Your task to perform on an android device: What's the weather? Image 0: 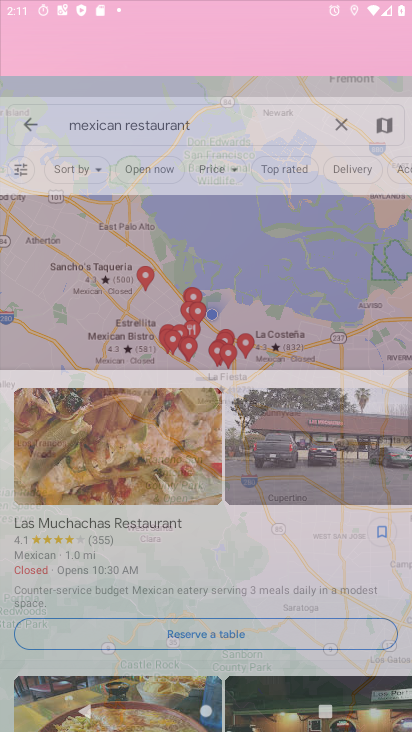
Step 0: drag from (263, 8) to (21, 650)
Your task to perform on an android device: What's the weather? Image 1: 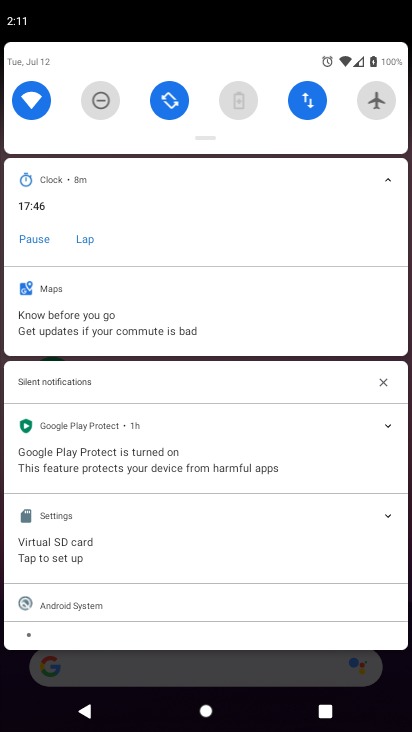
Step 1: drag from (170, 596) to (220, 86)
Your task to perform on an android device: What's the weather? Image 2: 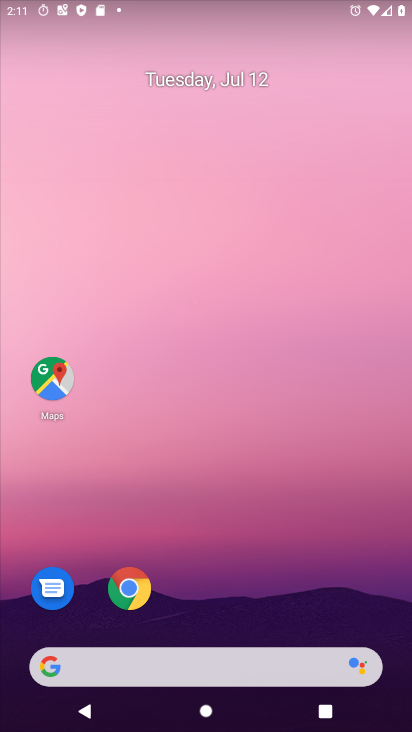
Step 2: drag from (189, 629) to (225, 5)
Your task to perform on an android device: What's the weather? Image 3: 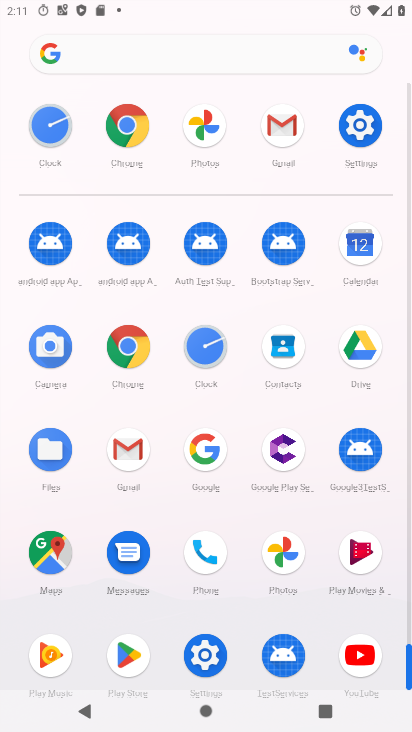
Step 3: click (155, 47)
Your task to perform on an android device: What's the weather? Image 4: 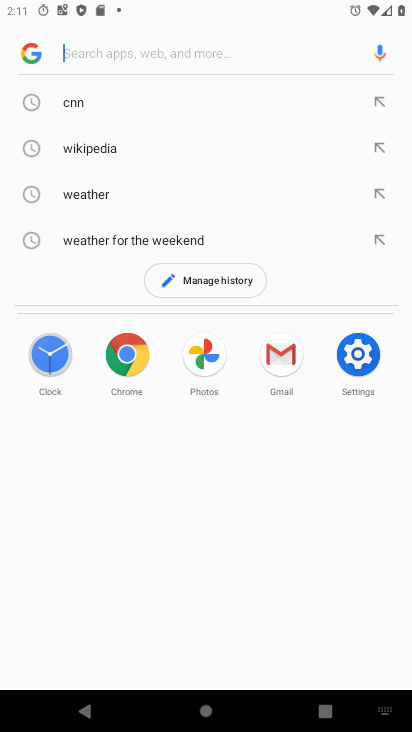
Step 4: click (83, 199)
Your task to perform on an android device: What's the weather? Image 5: 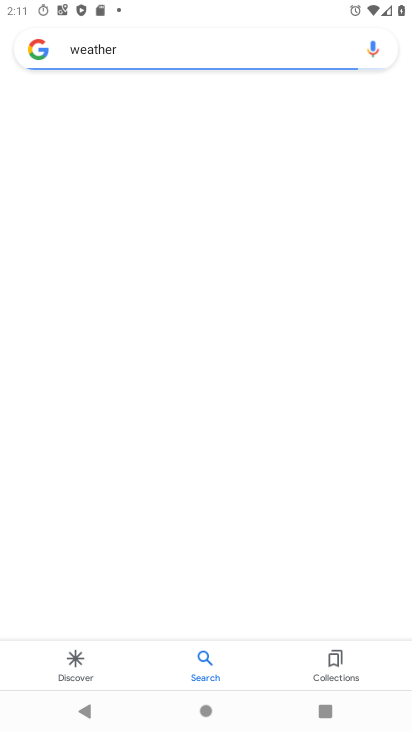
Step 5: task complete